Your task to perform on an android device: find which apps use the phone's location Image 0: 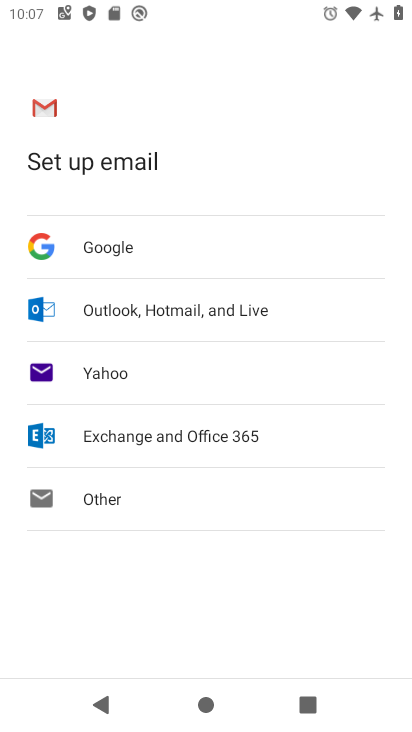
Step 0: press home button
Your task to perform on an android device: find which apps use the phone's location Image 1: 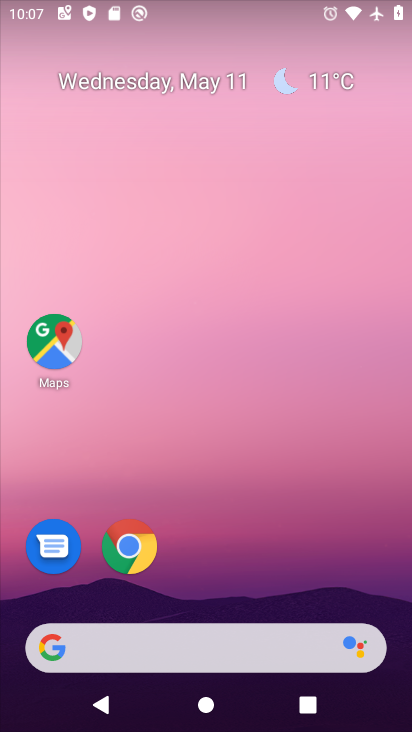
Step 1: drag from (362, 608) to (306, 124)
Your task to perform on an android device: find which apps use the phone's location Image 2: 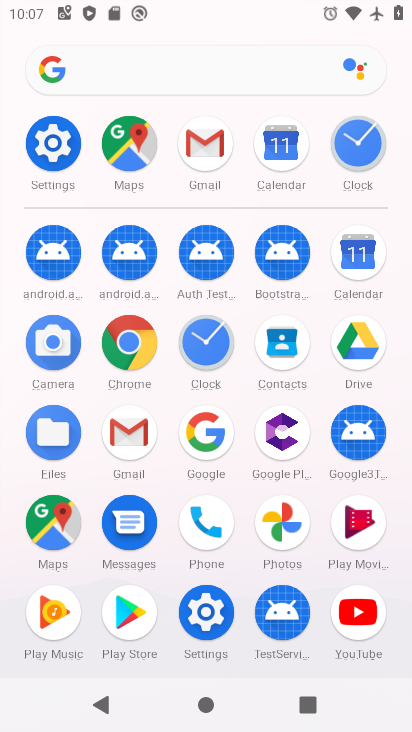
Step 2: click (200, 607)
Your task to perform on an android device: find which apps use the phone's location Image 3: 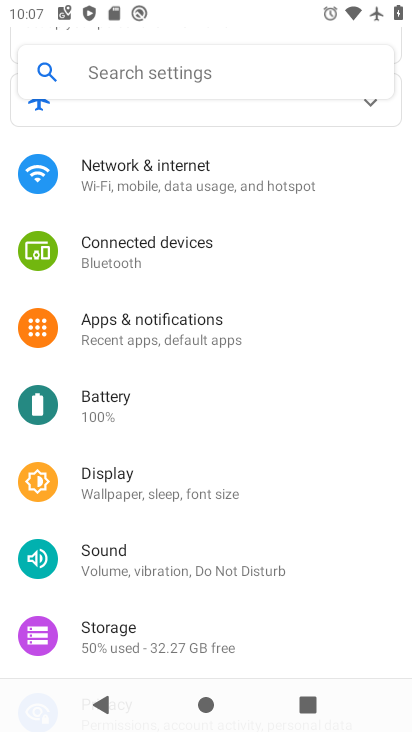
Step 3: drag from (289, 605) to (252, 198)
Your task to perform on an android device: find which apps use the phone's location Image 4: 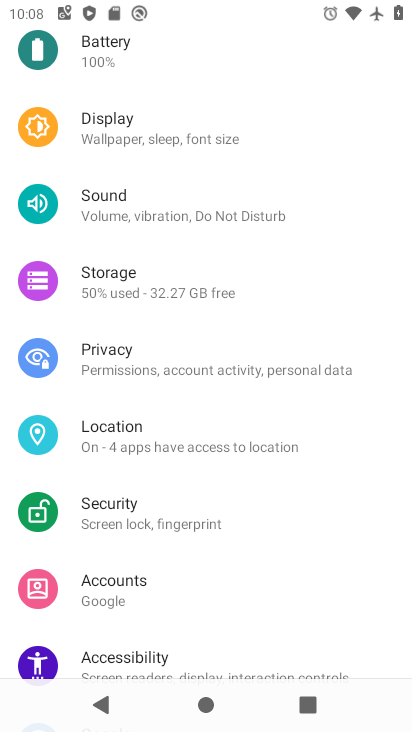
Step 4: click (109, 425)
Your task to perform on an android device: find which apps use the phone's location Image 5: 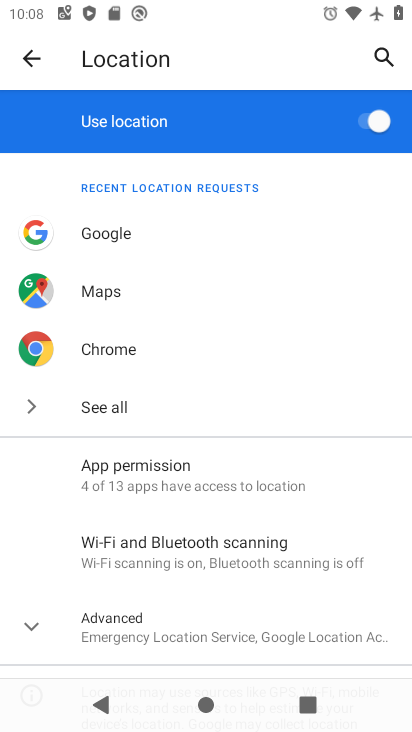
Step 5: click (132, 473)
Your task to perform on an android device: find which apps use the phone's location Image 6: 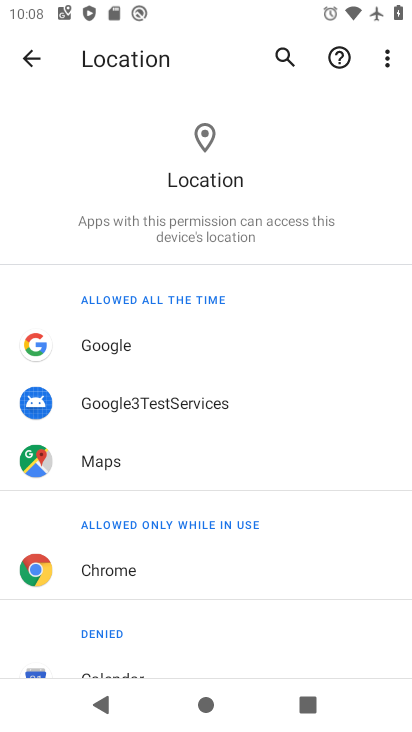
Step 6: drag from (286, 592) to (274, 193)
Your task to perform on an android device: find which apps use the phone's location Image 7: 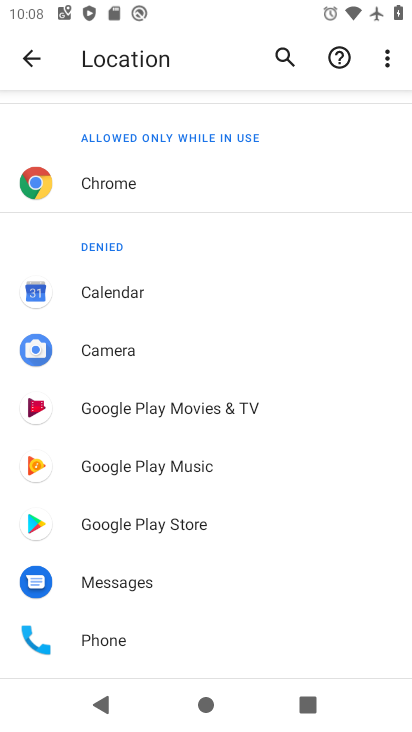
Step 7: drag from (237, 545) to (231, 205)
Your task to perform on an android device: find which apps use the phone's location Image 8: 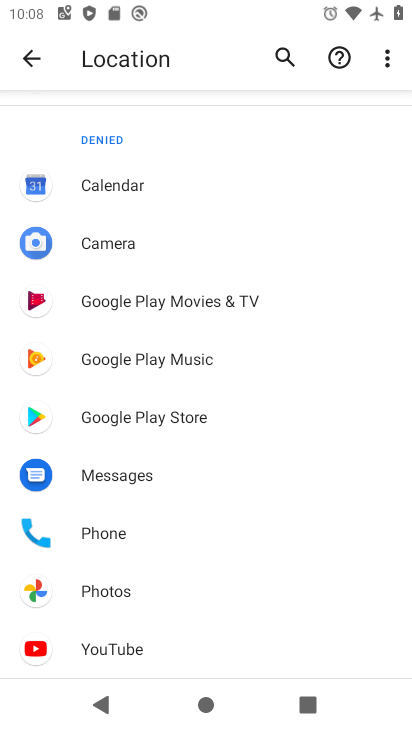
Step 8: click (98, 577)
Your task to perform on an android device: find which apps use the phone's location Image 9: 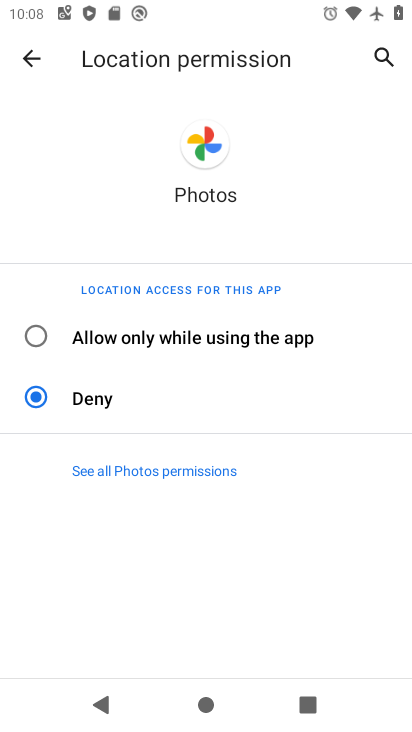
Step 9: task complete